Your task to perform on an android device: Open internet settings Image 0: 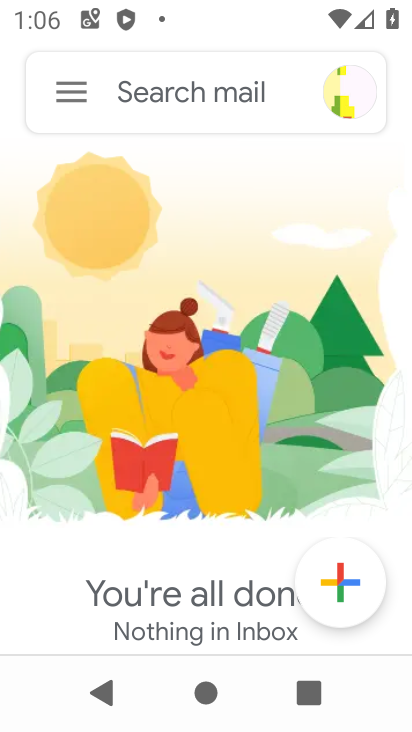
Step 0: drag from (238, 29) to (237, 639)
Your task to perform on an android device: Open internet settings Image 1: 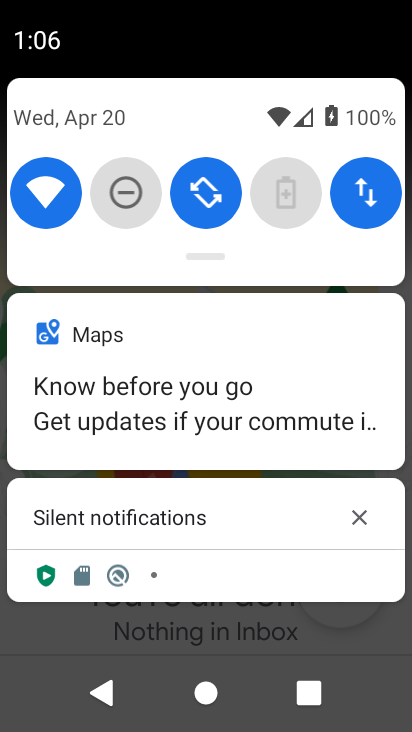
Step 1: drag from (221, 89) to (172, 679)
Your task to perform on an android device: Open internet settings Image 2: 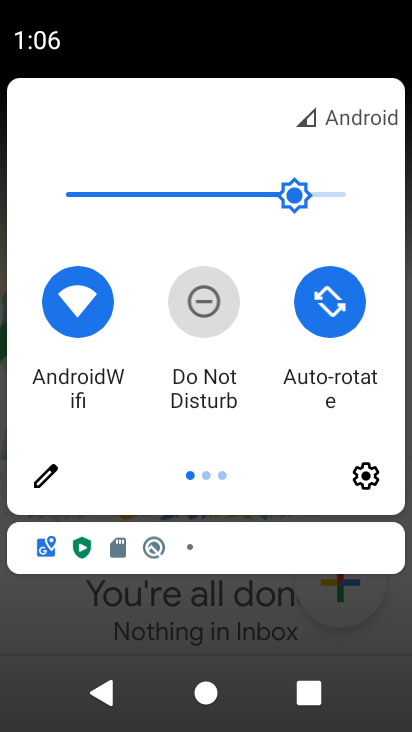
Step 2: click (354, 487)
Your task to perform on an android device: Open internet settings Image 3: 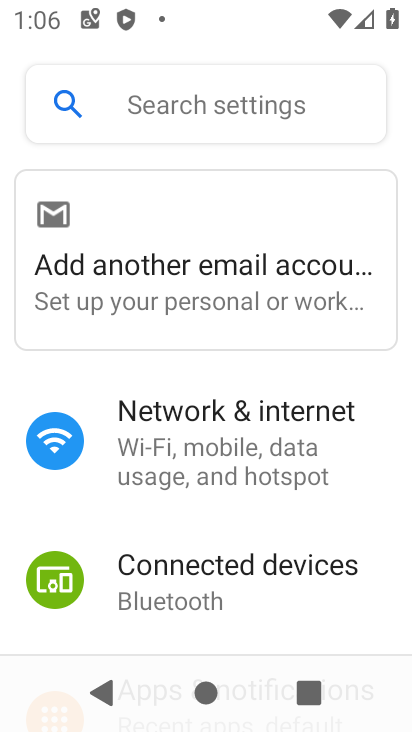
Step 3: drag from (354, 487) to (315, 109)
Your task to perform on an android device: Open internet settings Image 4: 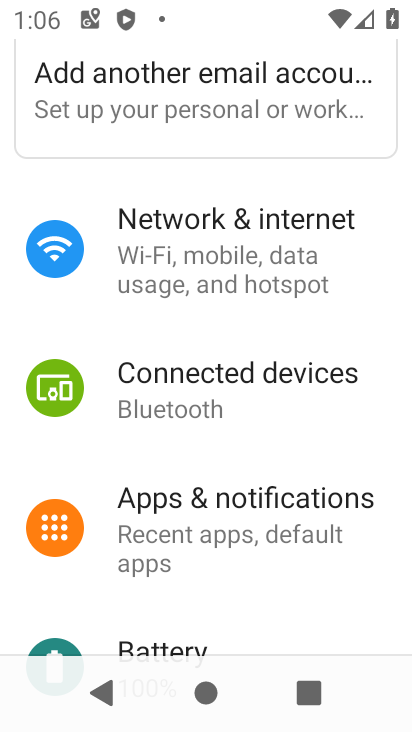
Step 4: drag from (149, 550) to (176, 143)
Your task to perform on an android device: Open internet settings Image 5: 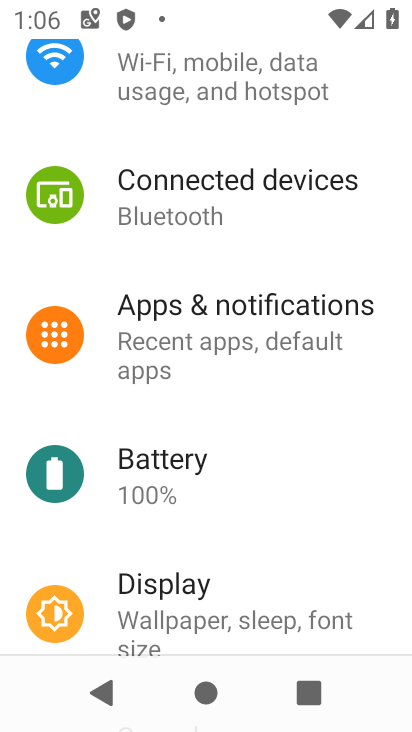
Step 5: click (212, 69)
Your task to perform on an android device: Open internet settings Image 6: 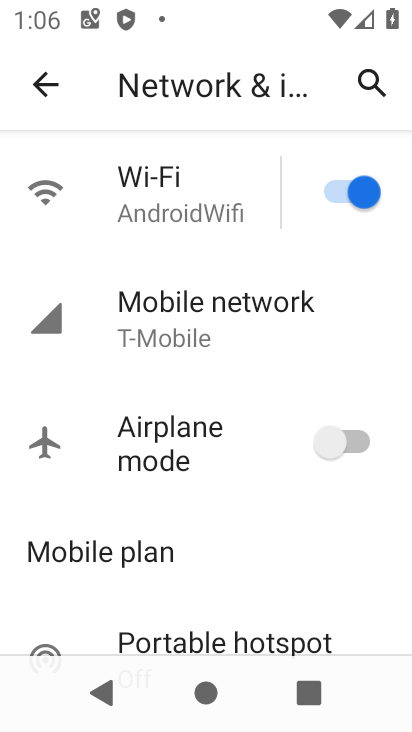
Step 6: click (184, 329)
Your task to perform on an android device: Open internet settings Image 7: 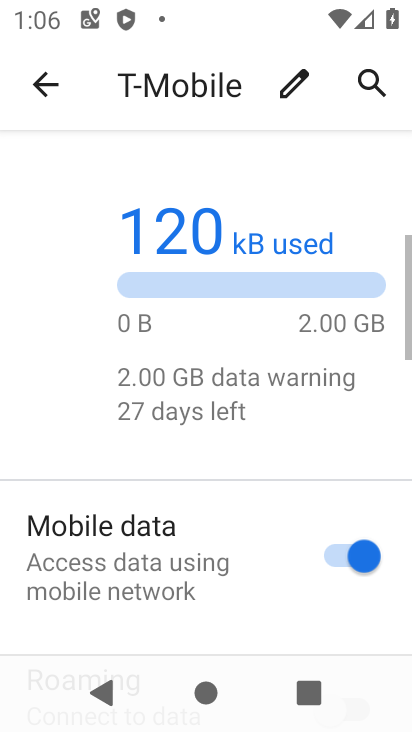
Step 7: task complete